Your task to perform on an android device: change the clock display to analog Image 0: 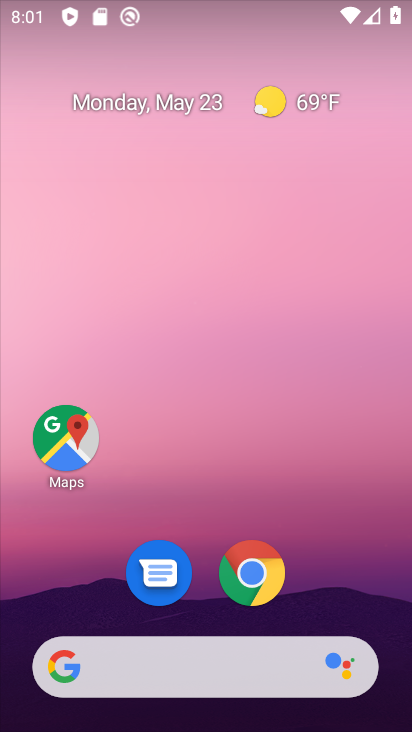
Step 0: drag from (350, 558) to (370, 165)
Your task to perform on an android device: change the clock display to analog Image 1: 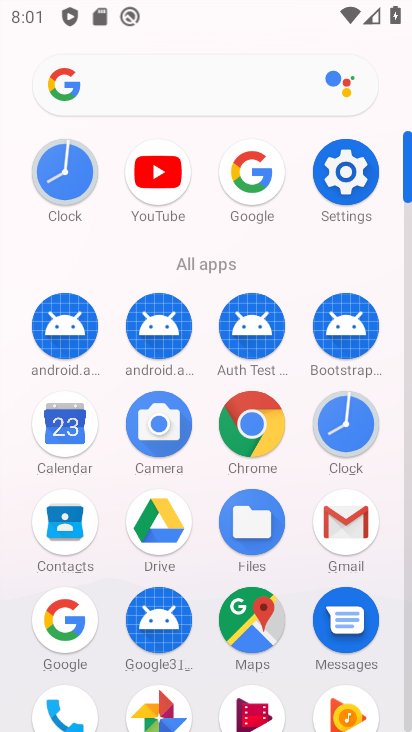
Step 1: click (355, 420)
Your task to perform on an android device: change the clock display to analog Image 2: 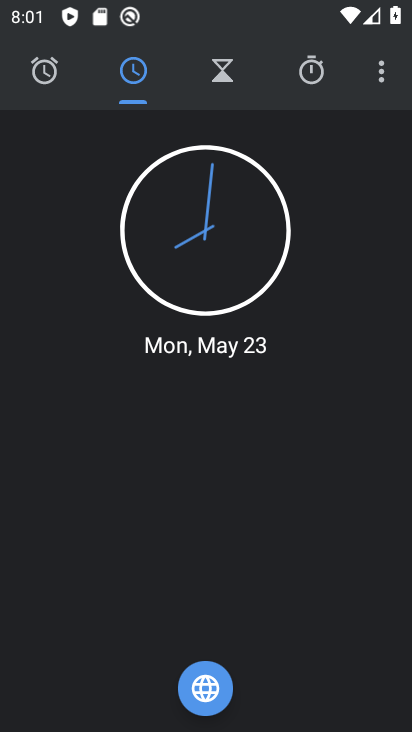
Step 2: click (391, 72)
Your task to perform on an android device: change the clock display to analog Image 3: 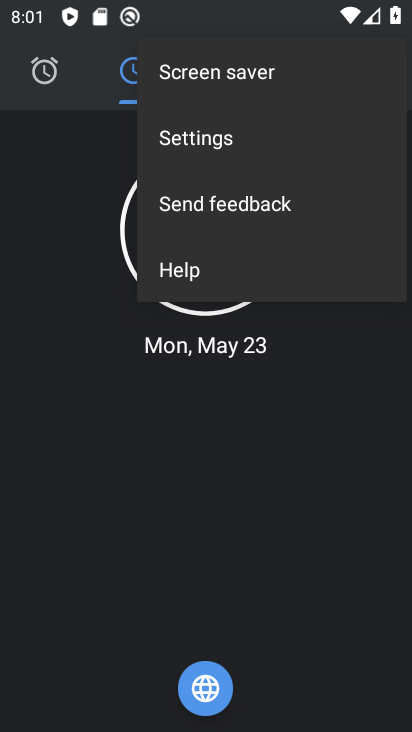
Step 3: click (174, 144)
Your task to perform on an android device: change the clock display to analog Image 4: 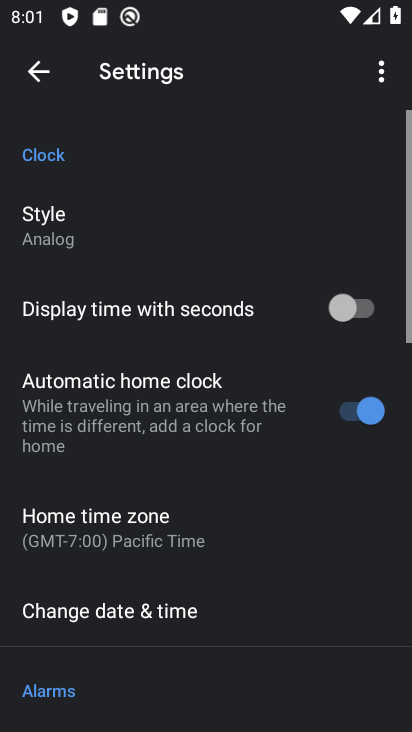
Step 4: click (91, 219)
Your task to perform on an android device: change the clock display to analog Image 5: 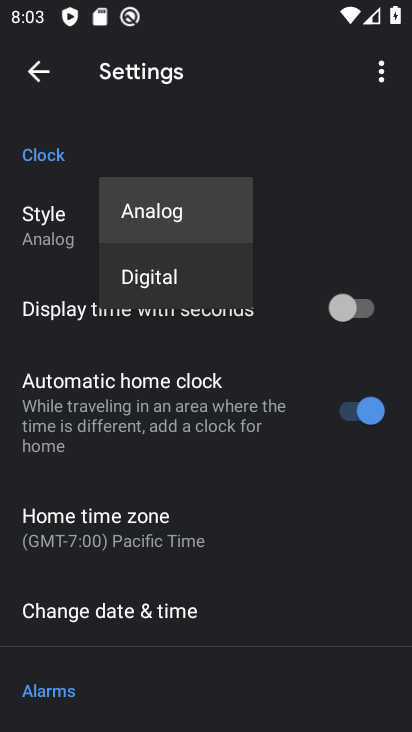
Step 5: task complete